Your task to perform on an android device: Toggle the flashlight Image 0: 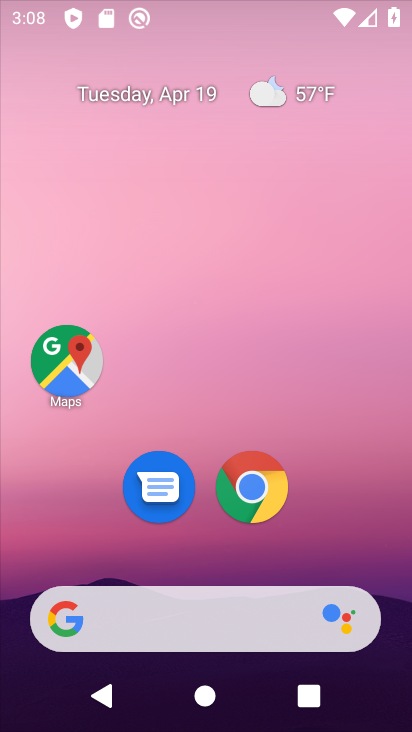
Step 0: drag from (370, 540) to (329, 98)
Your task to perform on an android device: Toggle the flashlight Image 1: 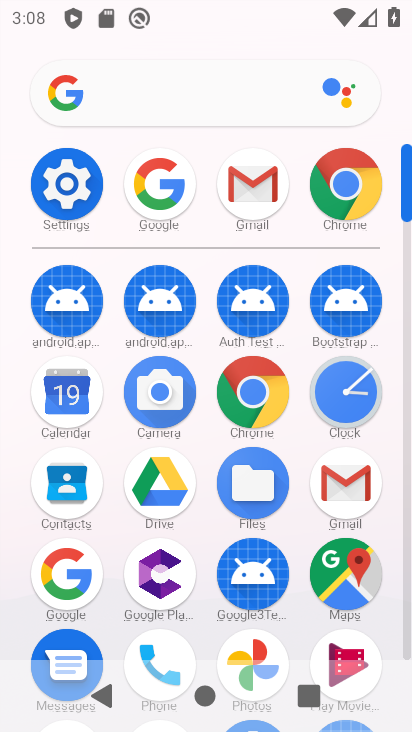
Step 1: click (65, 175)
Your task to perform on an android device: Toggle the flashlight Image 2: 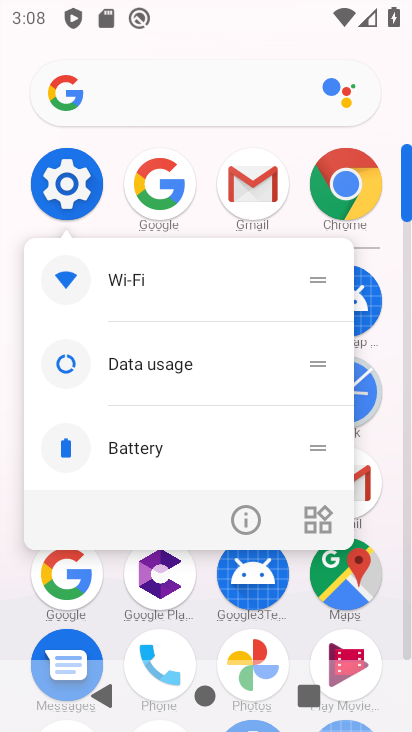
Step 2: click (67, 196)
Your task to perform on an android device: Toggle the flashlight Image 3: 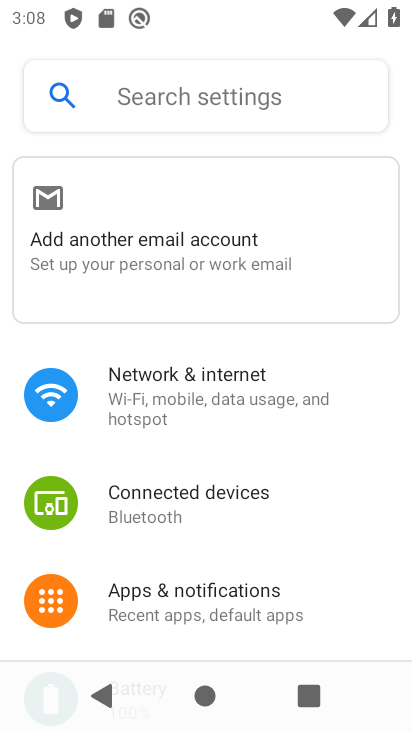
Step 3: click (235, 108)
Your task to perform on an android device: Toggle the flashlight Image 4: 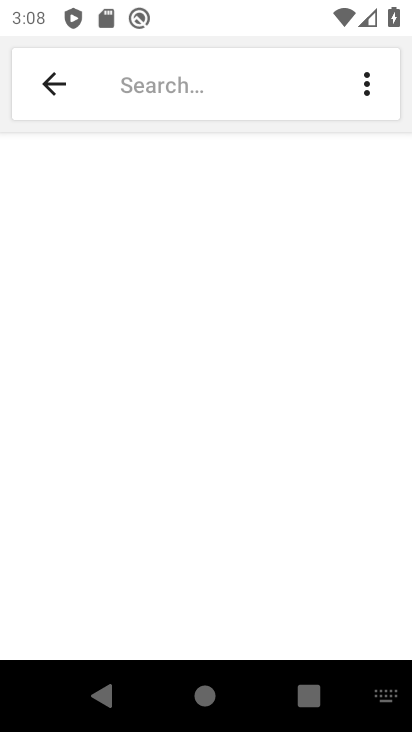
Step 4: type "flashlight"
Your task to perform on an android device: Toggle the flashlight Image 5: 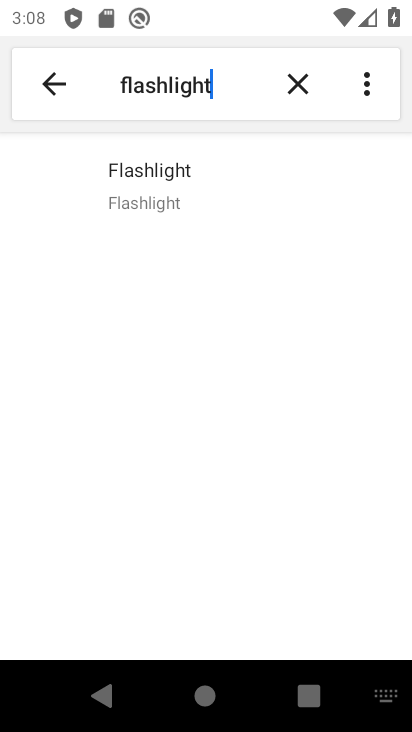
Step 5: click (153, 173)
Your task to perform on an android device: Toggle the flashlight Image 6: 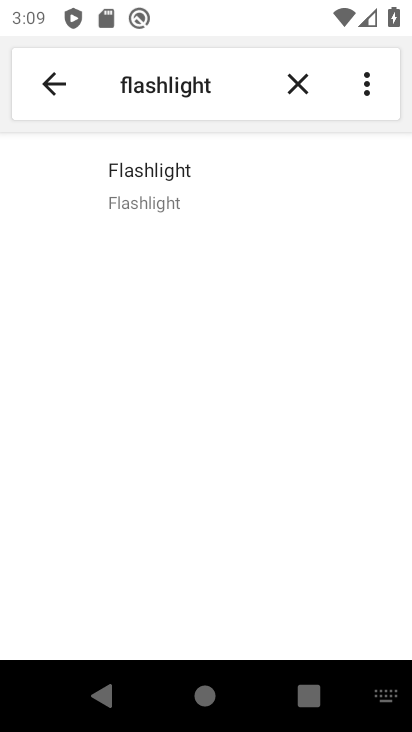
Step 6: task complete